Your task to perform on an android device: Open the map Image 0: 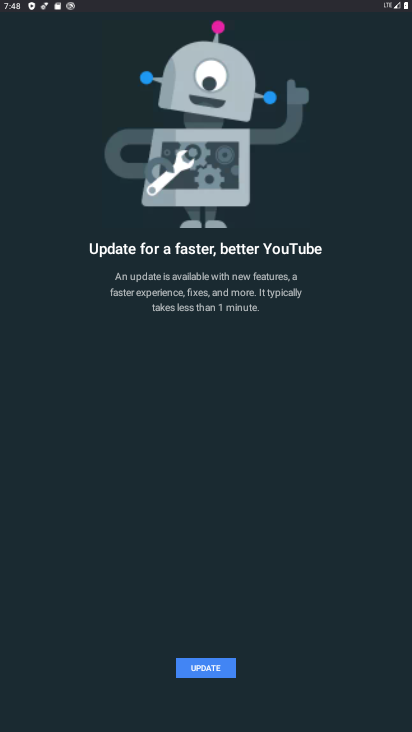
Step 0: press home button
Your task to perform on an android device: Open the map Image 1: 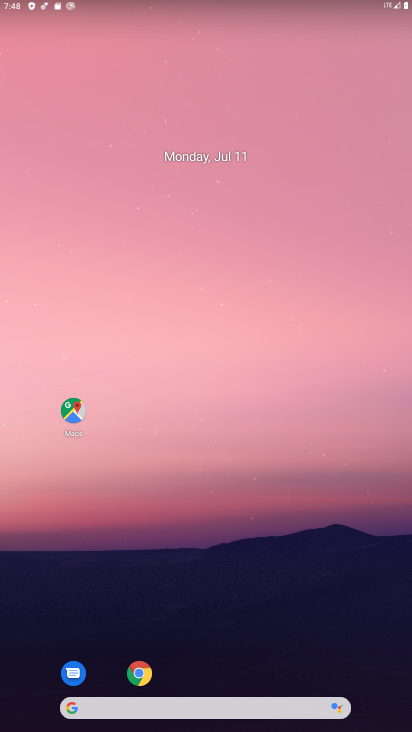
Step 1: click (69, 400)
Your task to perform on an android device: Open the map Image 2: 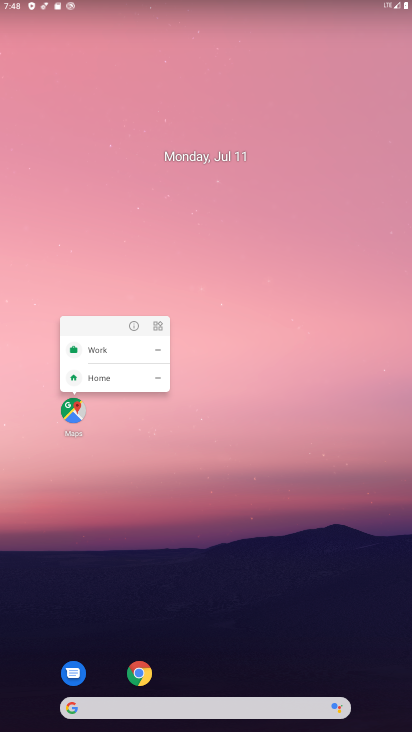
Step 2: click (76, 417)
Your task to perform on an android device: Open the map Image 3: 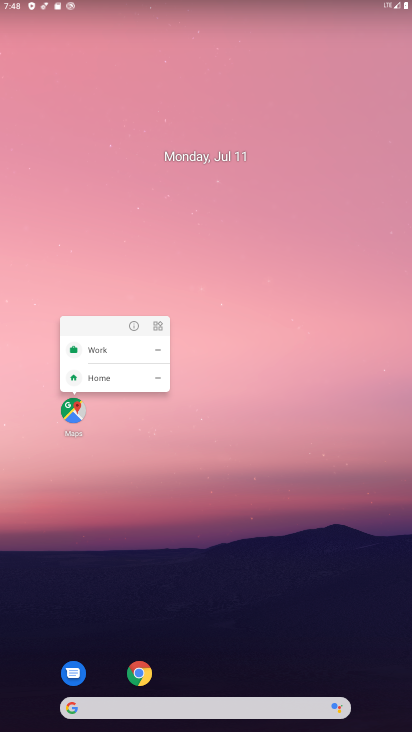
Step 3: click (77, 417)
Your task to perform on an android device: Open the map Image 4: 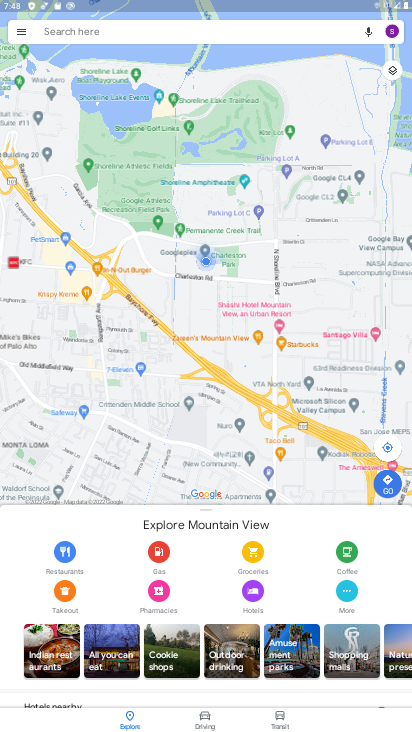
Step 4: task complete